Your task to perform on an android device: Search for Mexican restaurants on Maps Image 0: 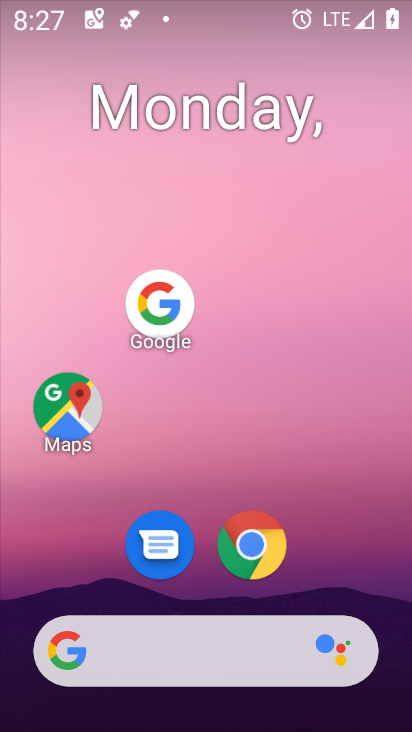
Step 0: click (66, 407)
Your task to perform on an android device: Search for Mexican restaurants on Maps Image 1: 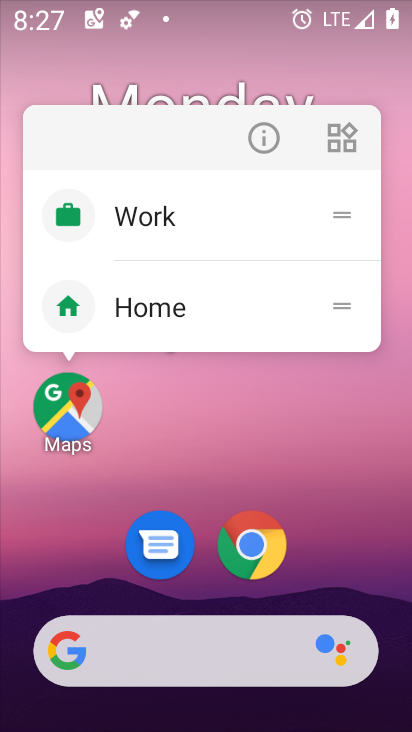
Step 1: click (80, 423)
Your task to perform on an android device: Search for Mexican restaurants on Maps Image 2: 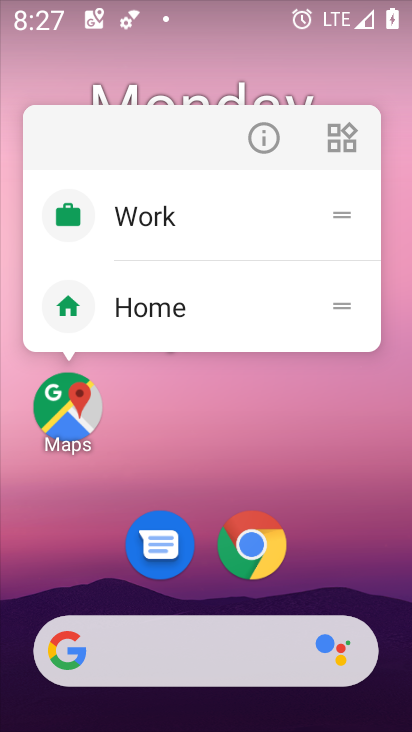
Step 2: click (68, 423)
Your task to perform on an android device: Search for Mexican restaurants on Maps Image 3: 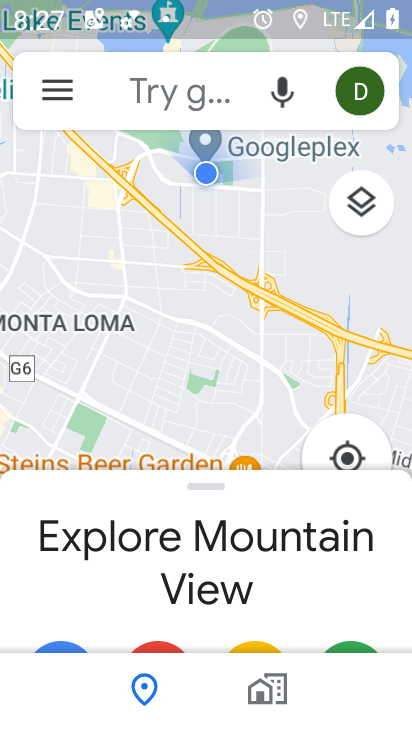
Step 3: click (188, 94)
Your task to perform on an android device: Search for Mexican restaurants on Maps Image 4: 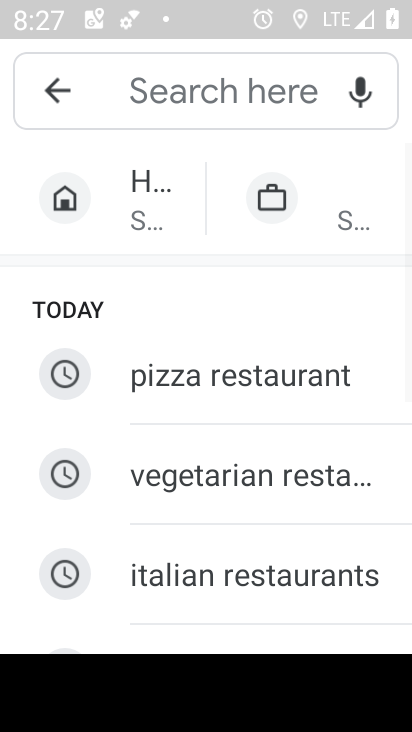
Step 4: drag from (225, 529) to (363, 170)
Your task to perform on an android device: Search for Mexican restaurants on Maps Image 5: 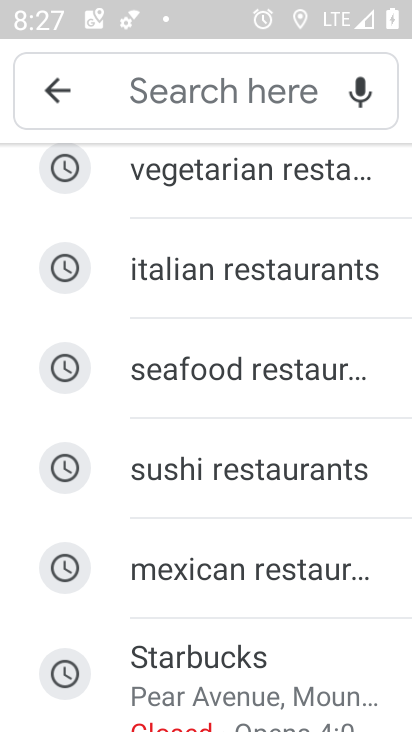
Step 5: click (227, 571)
Your task to perform on an android device: Search for Mexican restaurants on Maps Image 6: 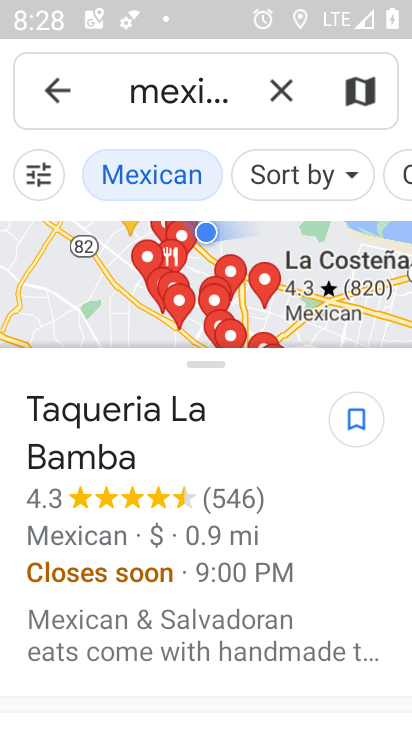
Step 6: task complete